Your task to perform on an android device: see creations saved in the google photos Image 0: 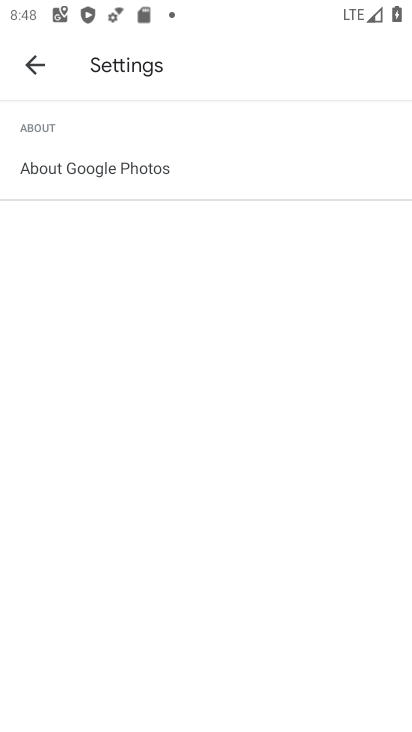
Step 0: press back button
Your task to perform on an android device: see creations saved in the google photos Image 1: 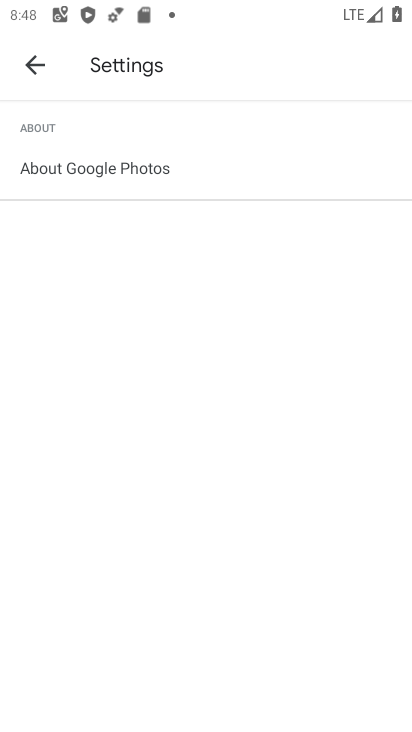
Step 1: press back button
Your task to perform on an android device: see creations saved in the google photos Image 2: 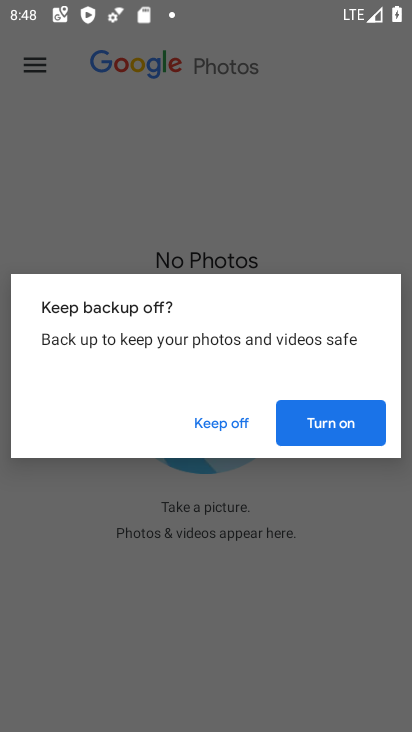
Step 2: press home button
Your task to perform on an android device: see creations saved in the google photos Image 3: 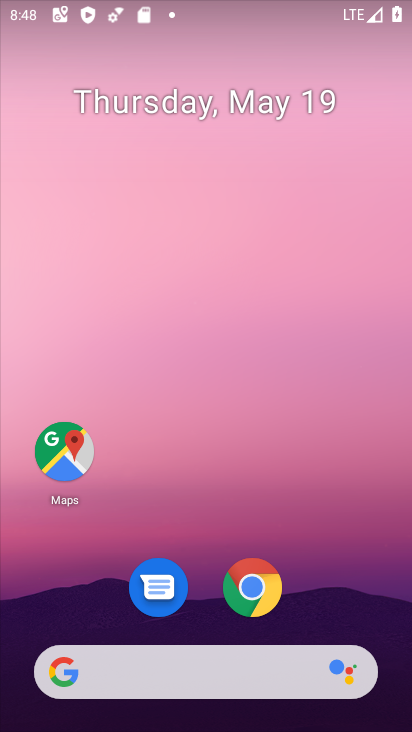
Step 3: drag from (313, 574) to (249, 13)
Your task to perform on an android device: see creations saved in the google photos Image 4: 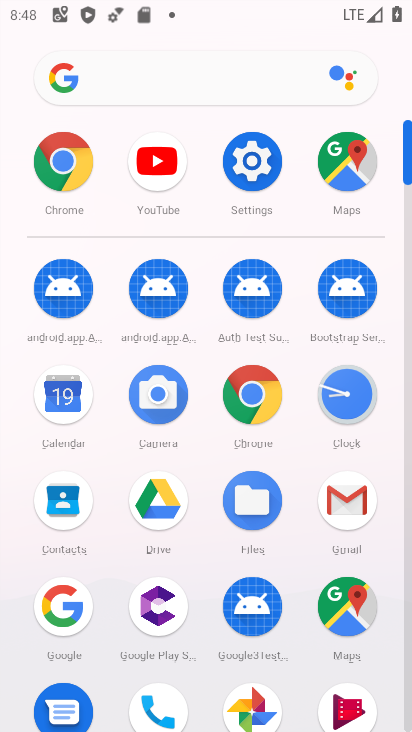
Step 4: click (252, 711)
Your task to perform on an android device: see creations saved in the google photos Image 5: 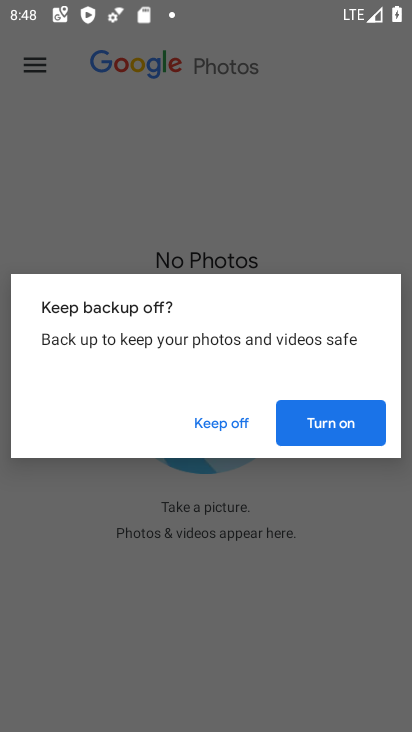
Step 5: click (326, 437)
Your task to perform on an android device: see creations saved in the google photos Image 6: 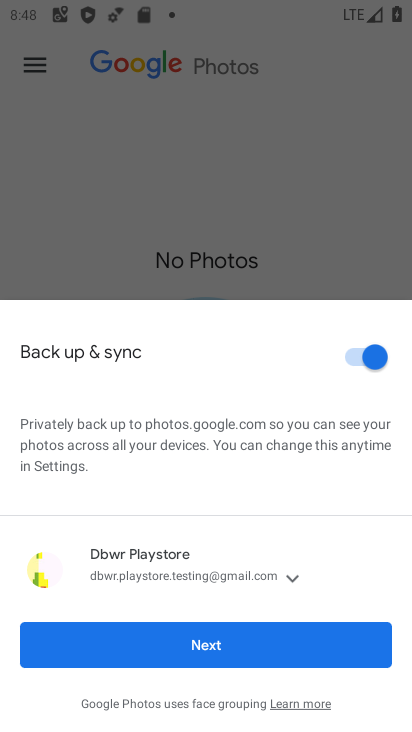
Step 6: click (181, 653)
Your task to perform on an android device: see creations saved in the google photos Image 7: 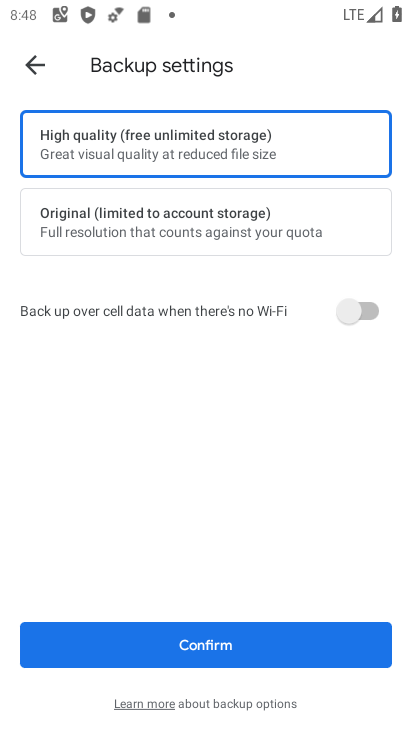
Step 7: click (198, 648)
Your task to perform on an android device: see creations saved in the google photos Image 8: 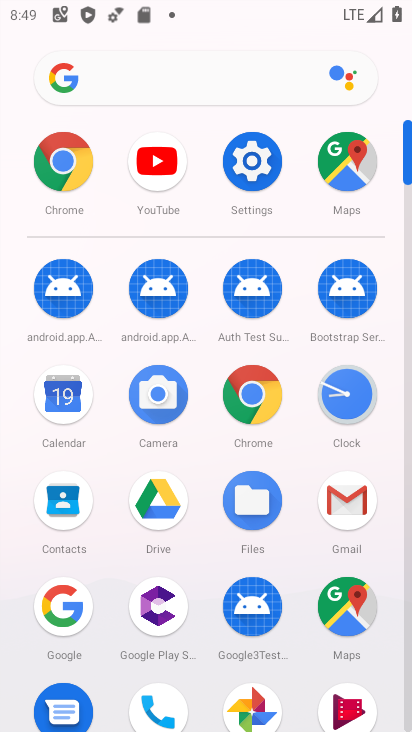
Step 8: click (256, 711)
Your task to perform on an android device: see creations saved in the google photos Image 9: 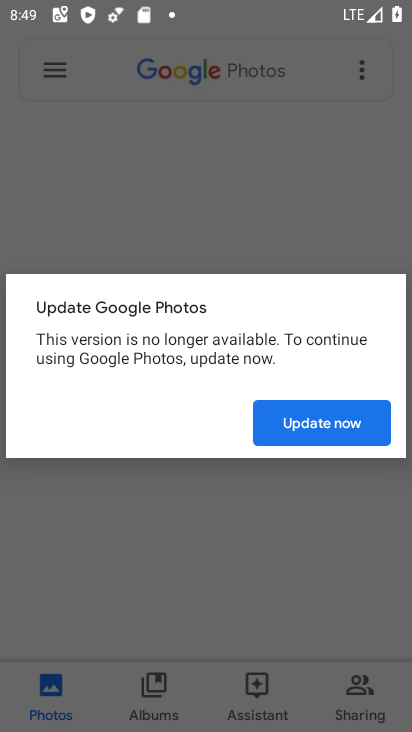
Step 9: click (338, 426)
Your task to perform on an android device: see creations saved in the google photos Image 10: 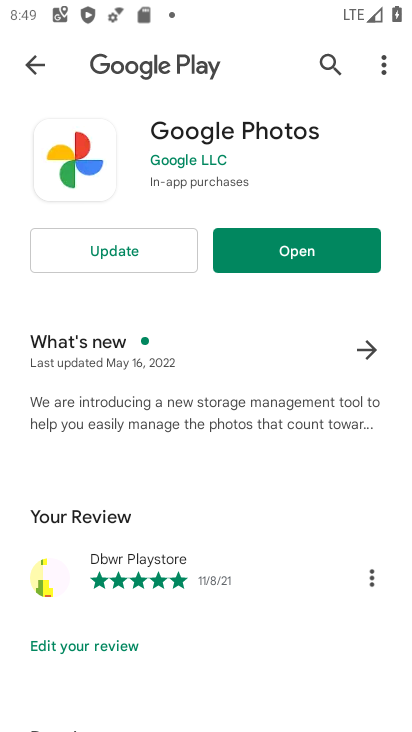
Step 10: click (143, 245)
Your task to perform on an android device: see creations saved in the google photos Image 11: 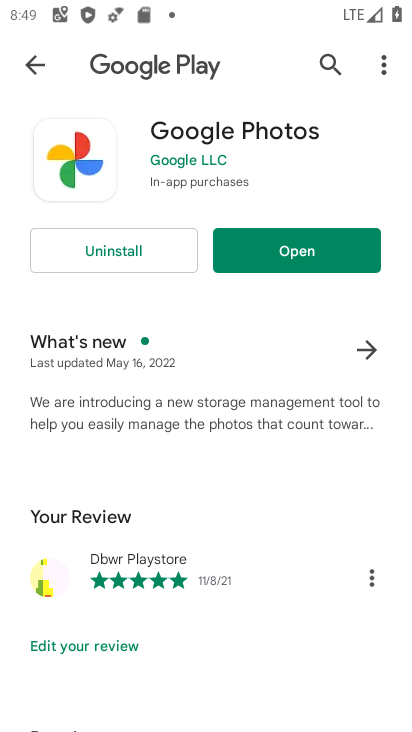
Step 11: click (269, 253)
Your task to perform on an android device: see creations saved in the google photos Image 12: 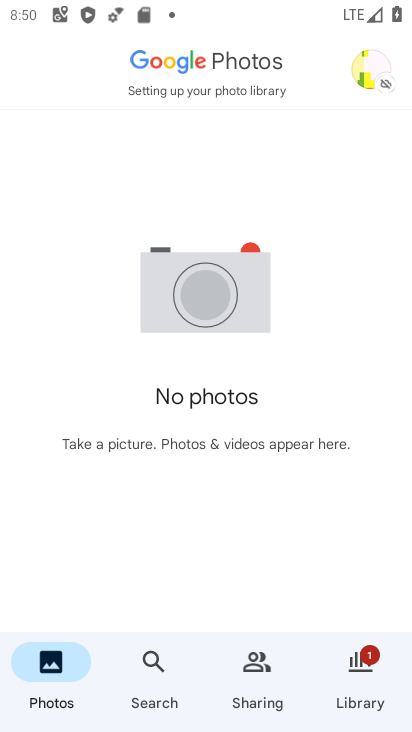
Step 12: task complete